Your task to perform on an android device: clear all cookies in the chrome app Image 0: 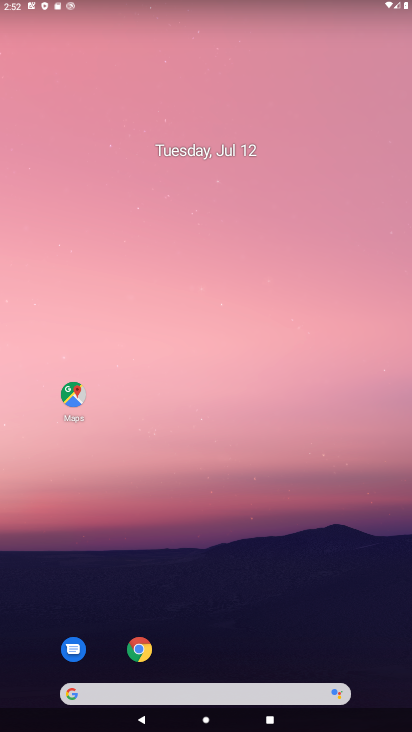
Step 0: drag from (237, 646) to (192, 261)
Your task to perform on an android device: clear all cookies in the chrome app Image 1: 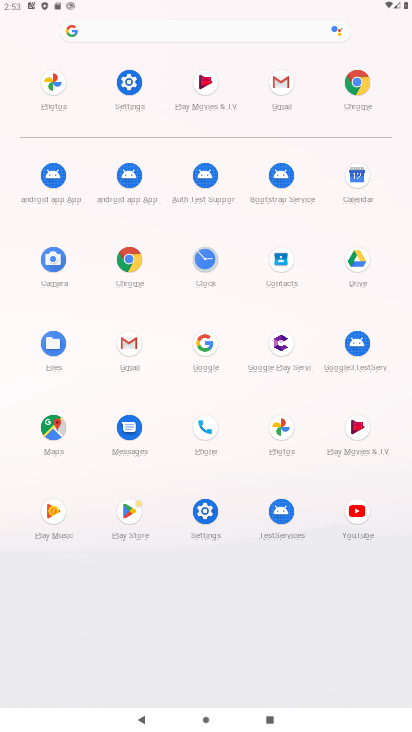
Step 1: click (134, 98)
Your task to perform on an android device: clear all cookies in the chrome app Image 2: 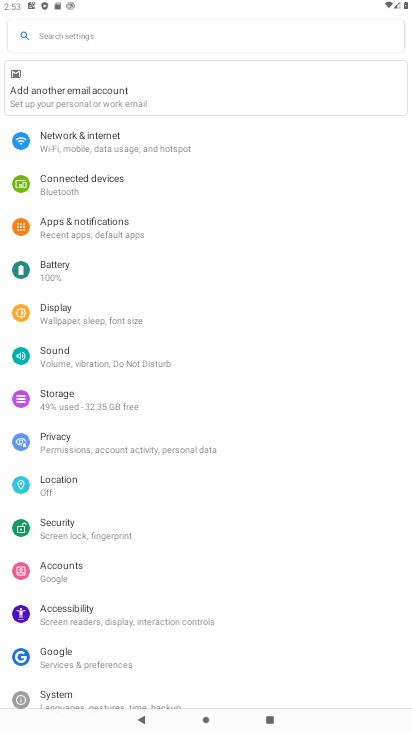
Step 2: press home button
Your task to perform on an android device: clear all cookies in the chrome app Image 3: 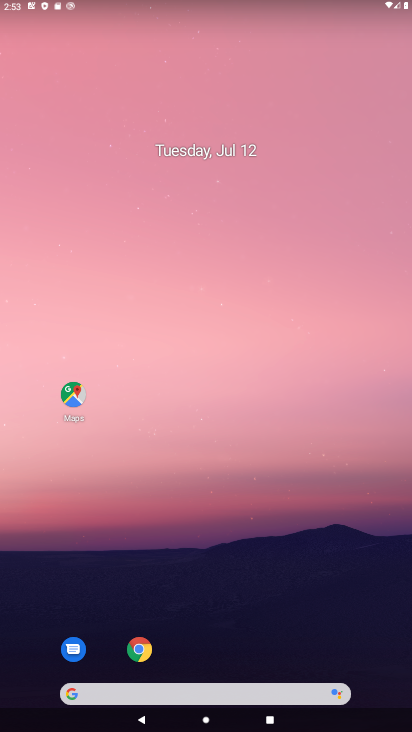
Step 3: drag from (275, 655) to (217, 142)
Your task to perform on an android device: clear all cookies in the chrome app Image 4: 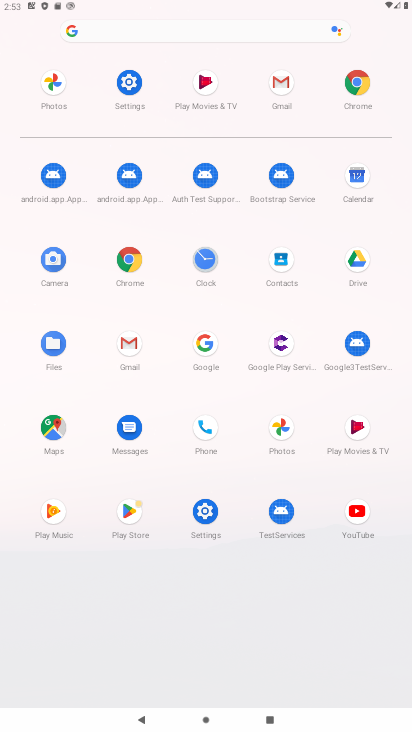
Step 4: click (133, 284)
Your task to perform on an android device: clear all cookies in the chrome app Image 5: 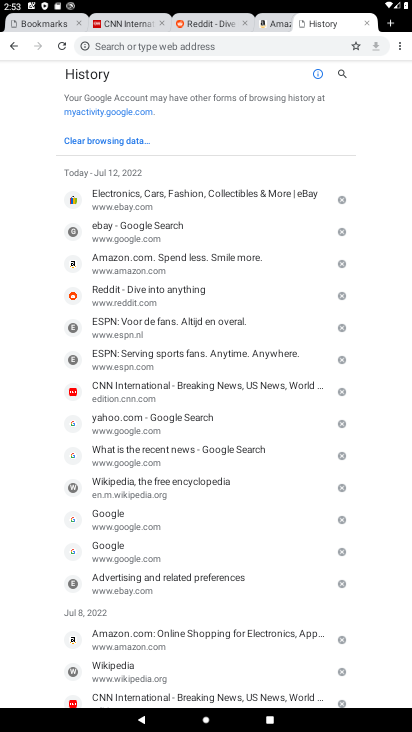
Step 5: click (121, 143)
Your task to perform on an android device: clear all cookies in the chrome app Image 6: 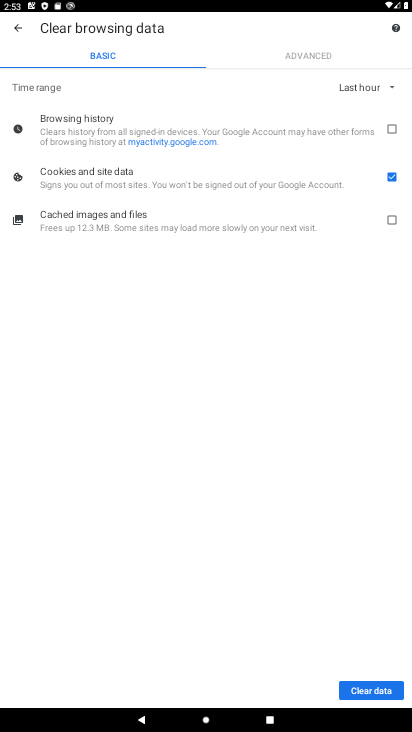
Step 6: click (381, 120)
Your task to perform on an android device: clear all cookies in the chrome app Image 7: 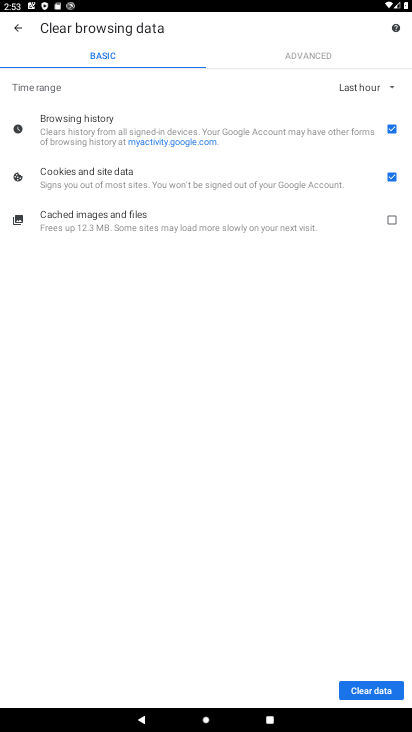
Step 7: click (382, 234)
Your task to perform on an android device: clear all cookies in the chrome app Image 8: 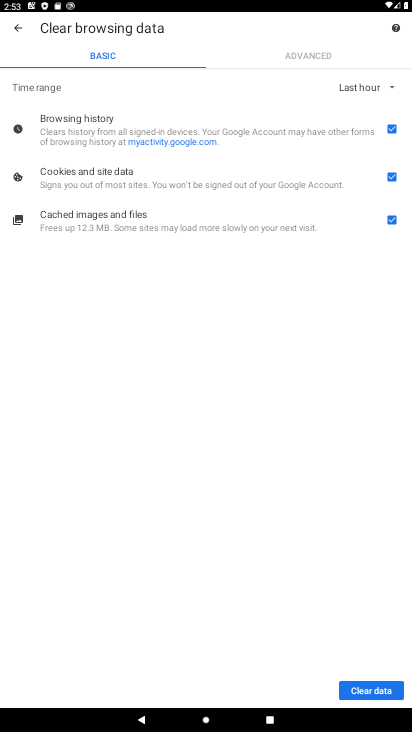
Step 8: click (364, 698)
Your task to perform on an android device: clear all cookies in the chrome app Image 9: 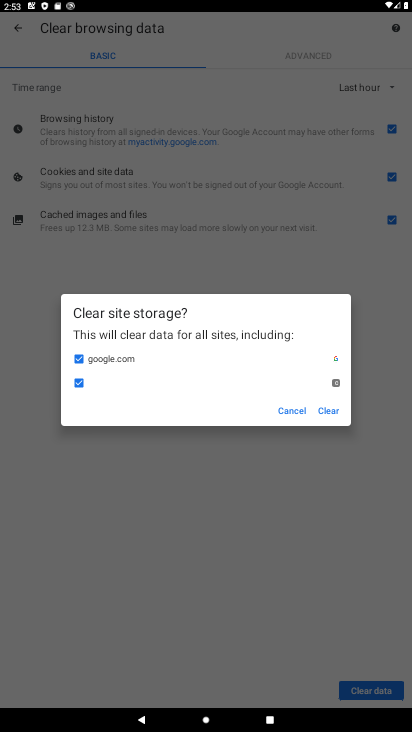
Step 9: click (328, 410)
Your task to perform on an android device: clear all cookies in the chrome app Image 10: 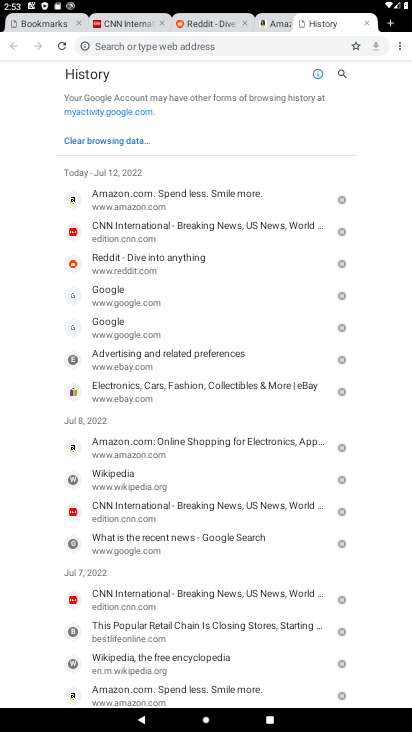
Step 10: task complete